Your task to perform on an android device: turn on notifications settings in the gmail app Image 0: 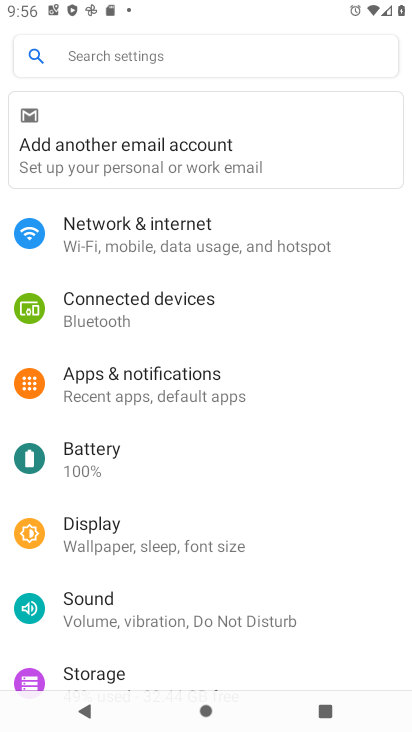
Step 0: press home button
Your task to perform on an android device: turn on notifications settings in the gmail app Image 1: 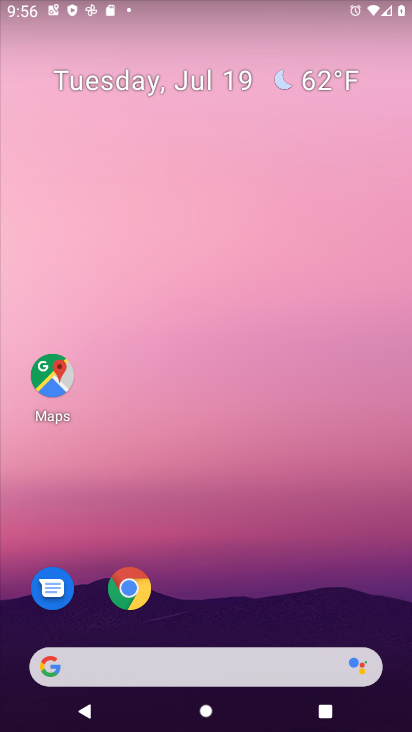
Step 1: drag from (319, 265) to (291, 6)
Your task to perform on an android device: turn on notifications settings in the gmail app Image 2: 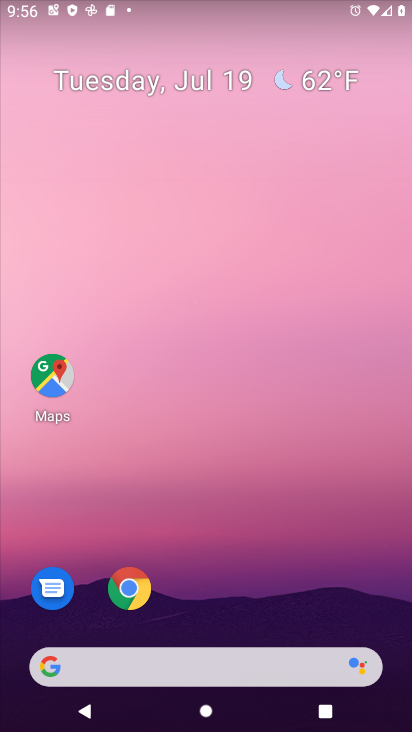
Step 2: drag from (341, 545) to (336, 44)
Your task to perform on an android device: turn on notifications settings in the gmail app Image 3: 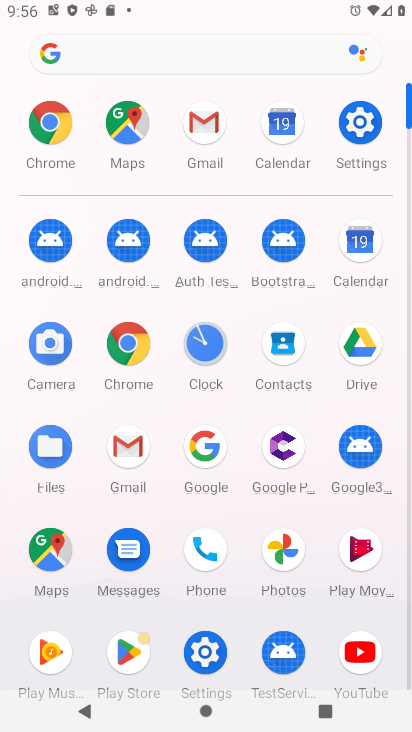
Step 3: click (196, 128)
Your task to perform on an android device: turn on notifications settings in the gmail app Image 4: 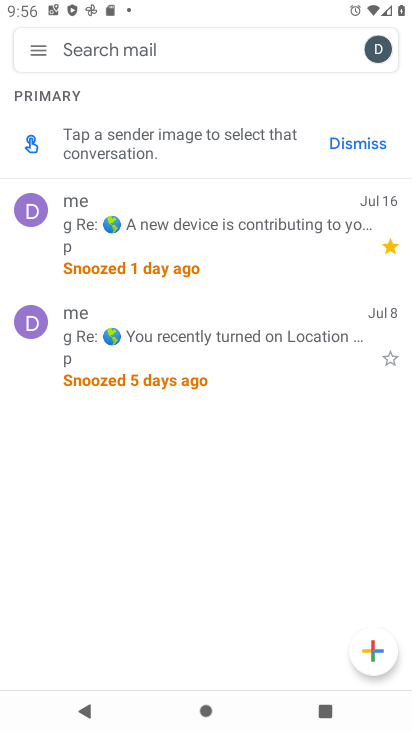
Step 4: click (33, 52)
Your task to perform on an android device: turn on notifications settings in the gmail app Image 5: 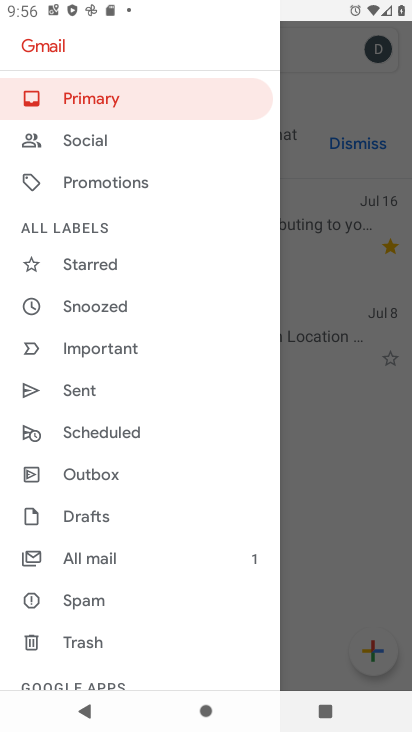
Step 5: drag from (127, 594) to (105, 138)
Your task to perform on an android device: turn on notifications settings in the gmail app Image 6: 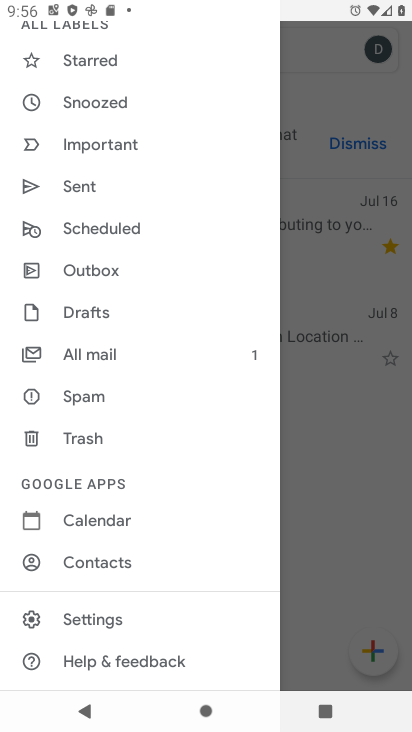
Step 6: click (95, 627)
Your task to perform on an android device: turn on notifications settings in the gmail app Image 7: 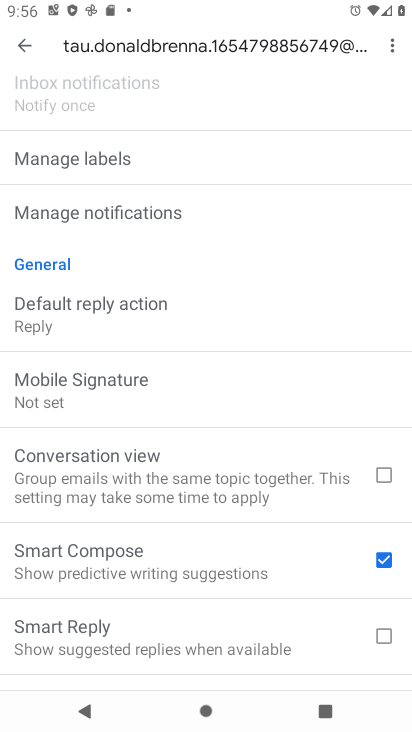
Step 7: drag from (185, 556) to (302, 133)
Your task to perform on an android device: turn on notifications settings in the gmail app Image 8: 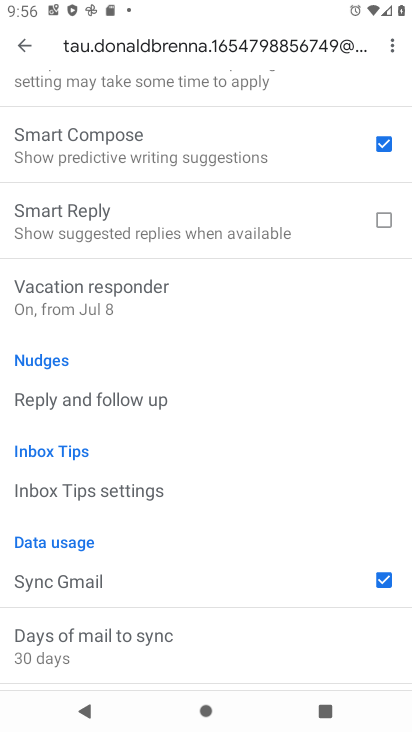
Step 8: drag from (303, 171) to (385, 641)
Your task to perform on an android device: turn on notifications settings in the gmail app Image 9: 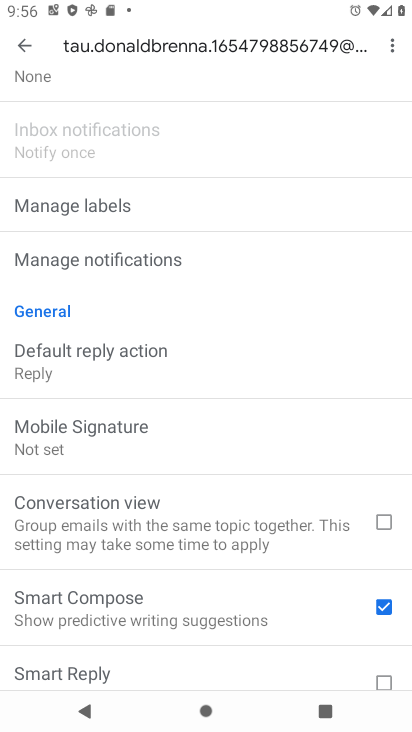
Step 9: click (144, 133)
Your task to perform on an android device: turn on notifications settings in the gmail app Image 10: 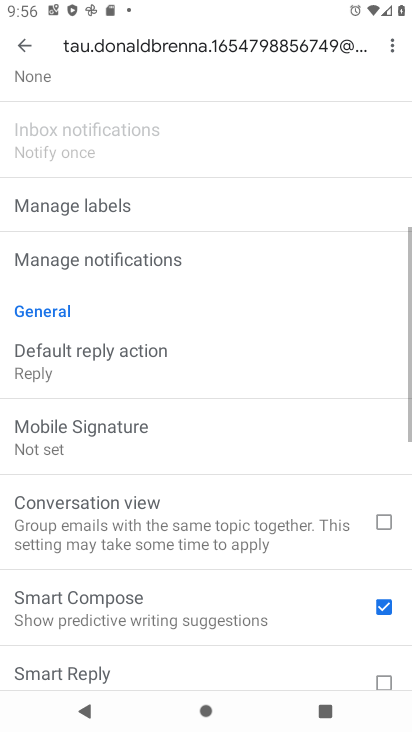
Step 10: drag from (143, 136) to (175, 544)
Your task to perform on an android device: turn on notifications settings in the gmail app Image 11: 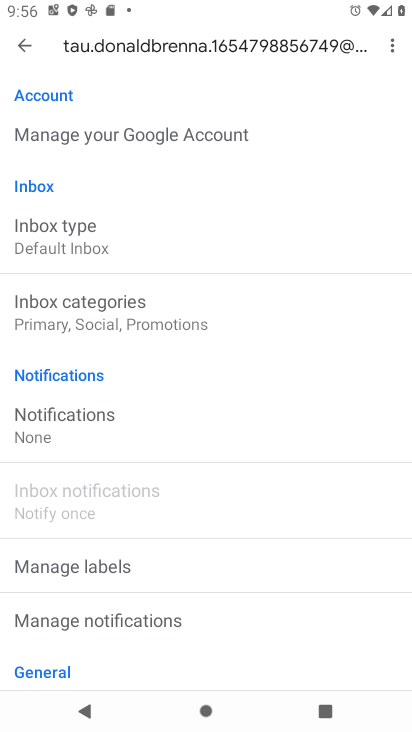
Step 11: click (76, 417)
Your task to perform on an android device: turn on notifications settings in the gmail app Image 12: 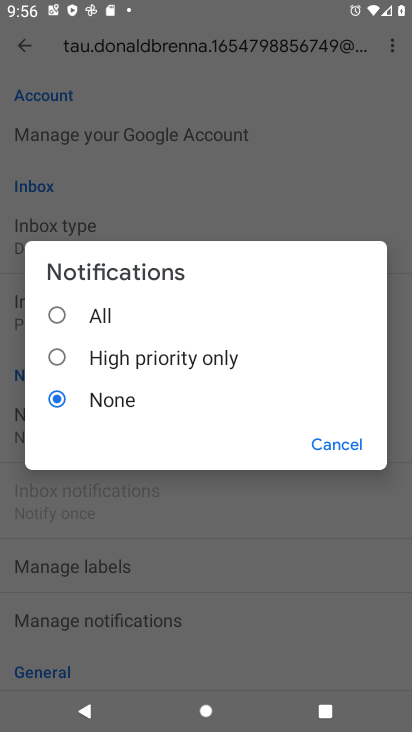
Step 12: click (61, 300)
Your task to perform on an android device: turn on notifications settings in the gmail app Image 13: 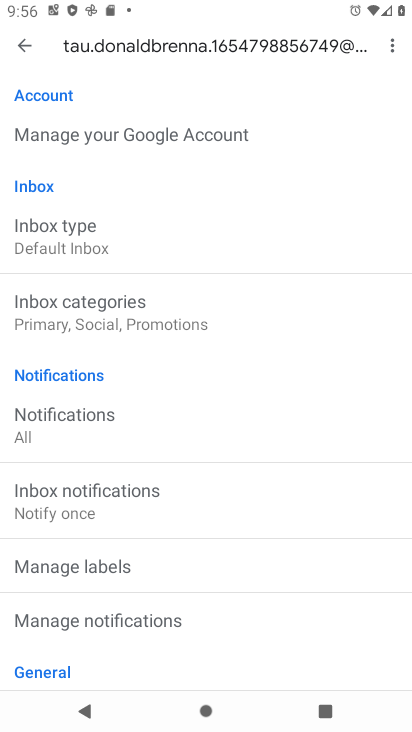
Step 13: task complete